Your task to perform on an android device: Do I have any events today? Image 0: 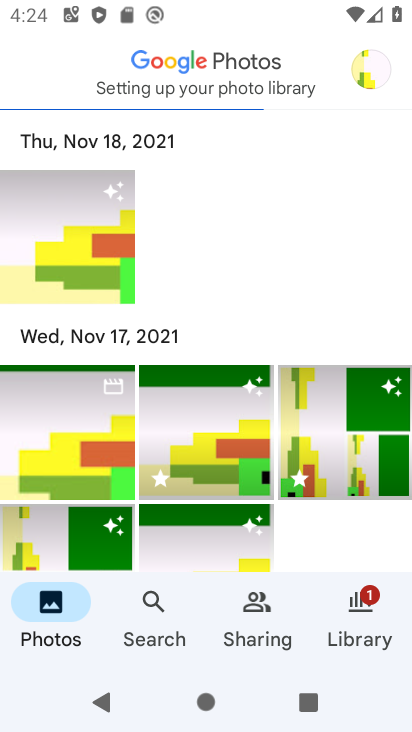
Step 0: press home button
Your task to perform on an android device: Do I have any events today? Image 1: 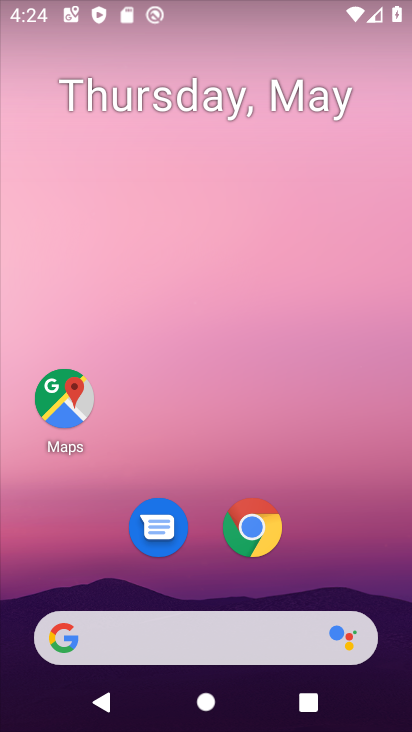
Step 1: drag from (339, 529) to (407, 12)
Your task to perform on an android device: Do I have any events today? Image 2: 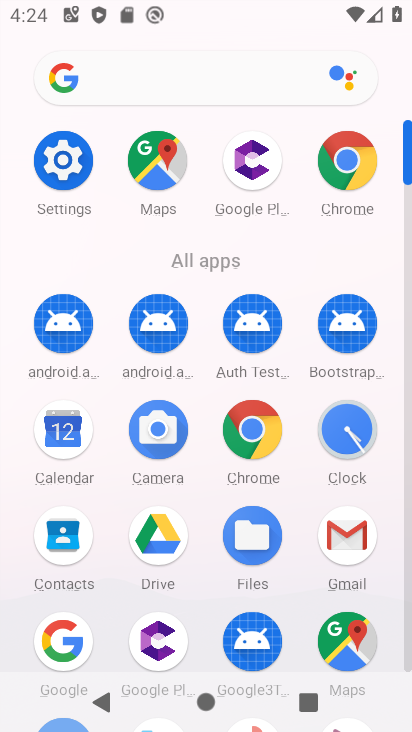
Step 2: click (93, 445)
Your task to perform on an android device: Do I have any events today? Image 3: 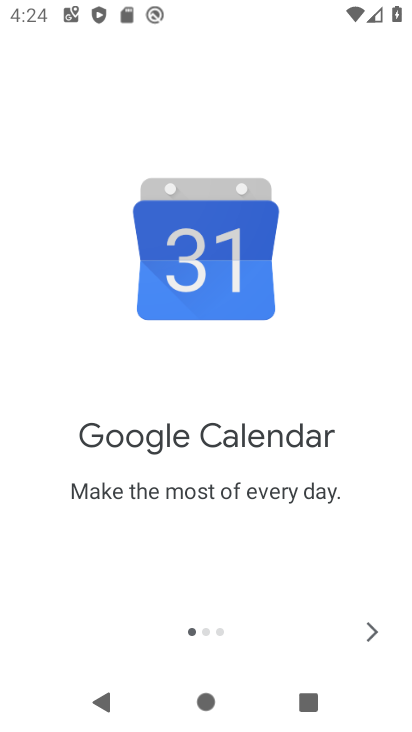
Step 3: click (360, 632)
Your task to perform on an android device: Do I have any events today? Image 4: 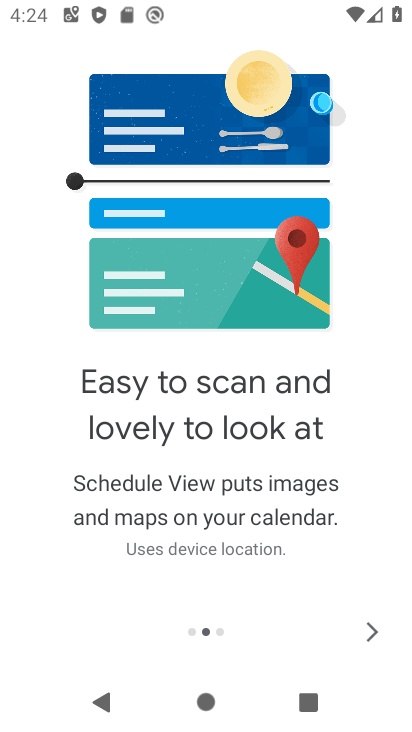
Step 4: click (361, 632)
Your task to perform on an android device: Do I have any events today? Image 5: 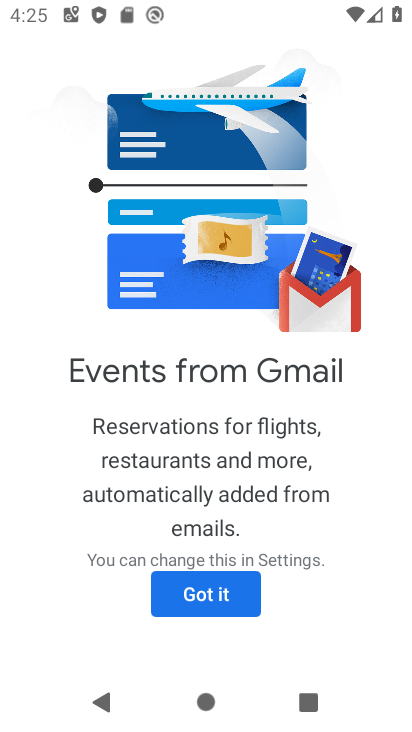
Step 5: click (201, 604)
Your task to perform on an android device: Do I have any events today? Image 6: 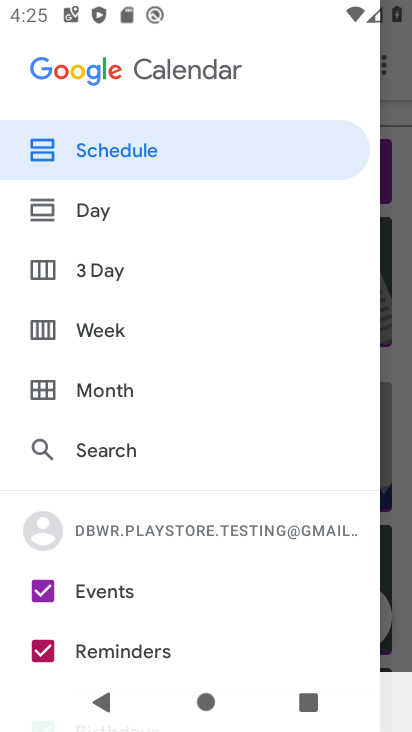
Step 6: click (93, 697)
Your task to perform on an android device: Do I have any events today? Image 7: 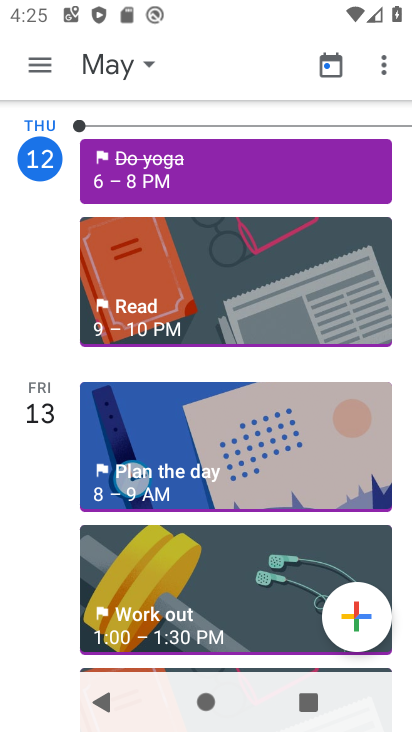
Step 7: click (129, 65)
Your task to perform on an android device: Do I have any events today? Image 8: 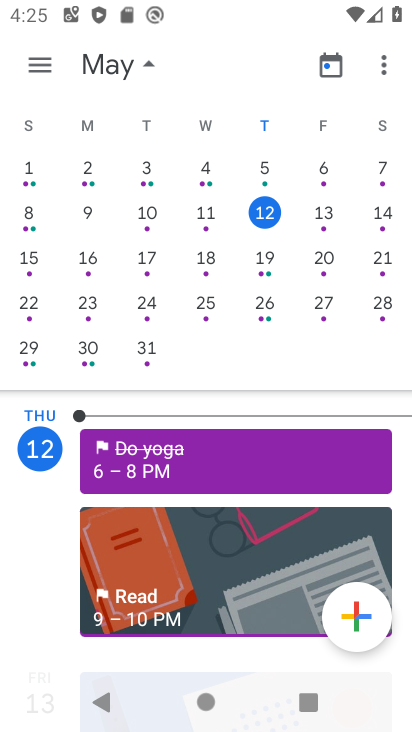
Step 8: task complete